Your task to perform on an android device: Go to eBay Image 0: 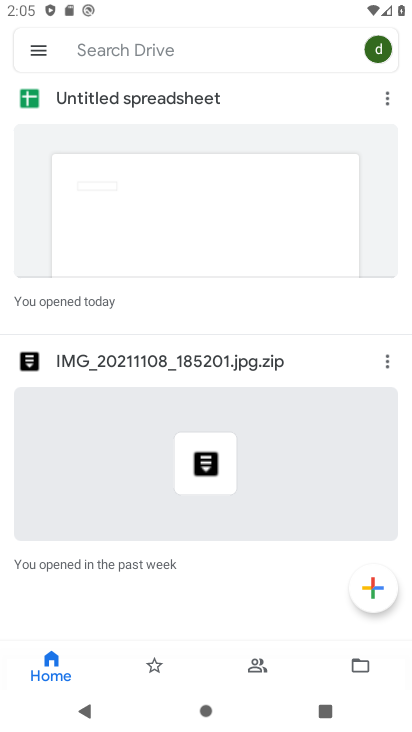
Step 0: press home button
Your task to perform on an android device: Go to eBay Image 1: 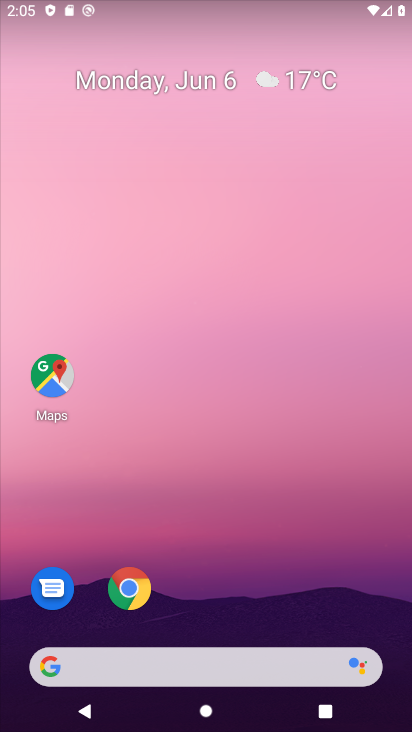
Step 1: click (129, 590)
Your task to perform on an android device: Go to eBay Image 2: 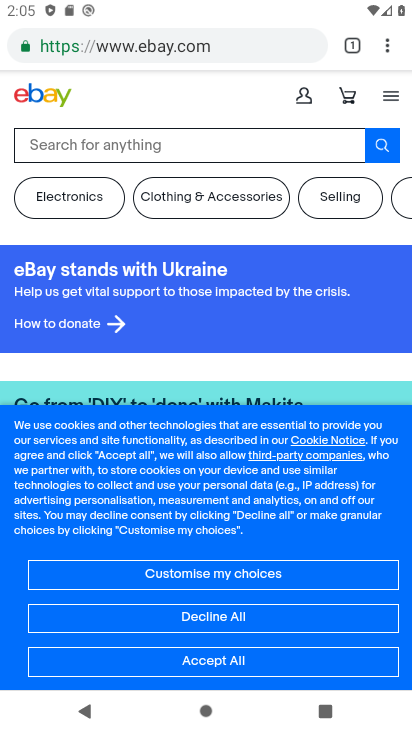
Step 2: task complete